Your task to perform on an android device: Search for hotels in Zurich Image 0: 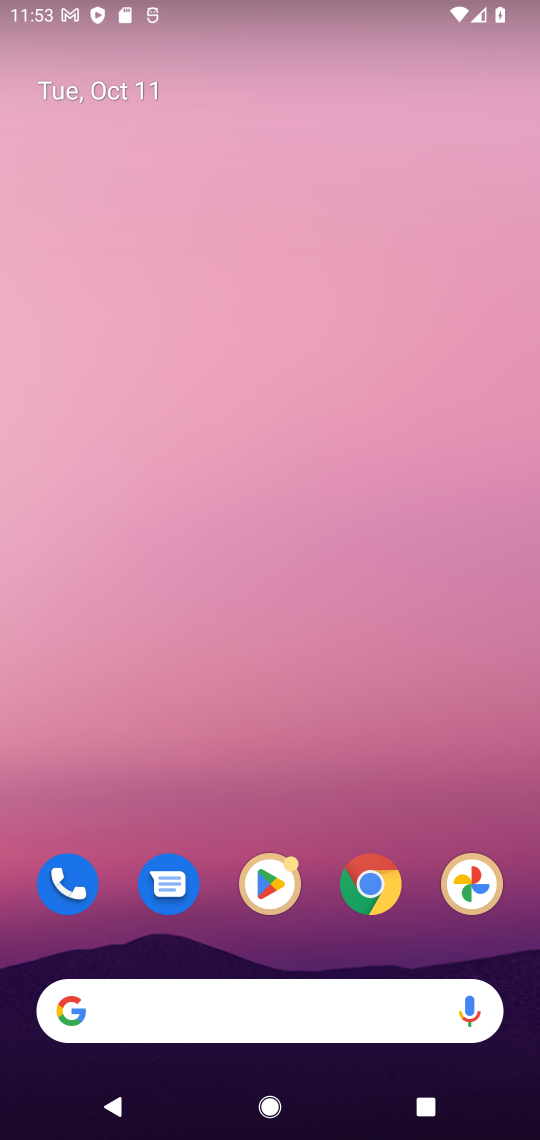
Step 0: drag from (174, 1035) to (211, 341)
Your task to perform on an android device: Search for hotels in Zurich Image 1: 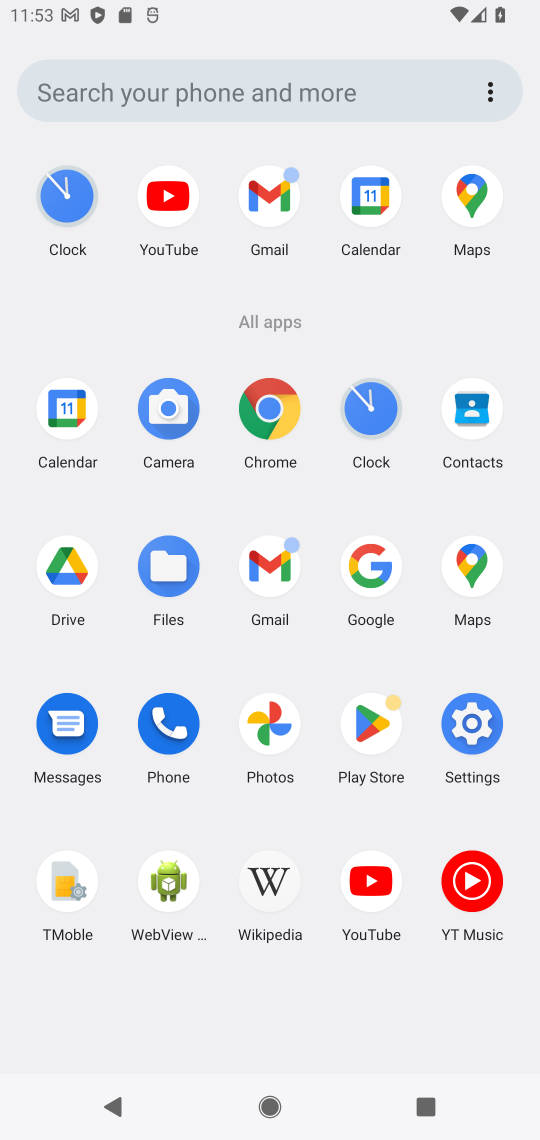
Step 1: click (356, 558)
Your task to perform on an android device: Search for hotels in Zurich Image 2: 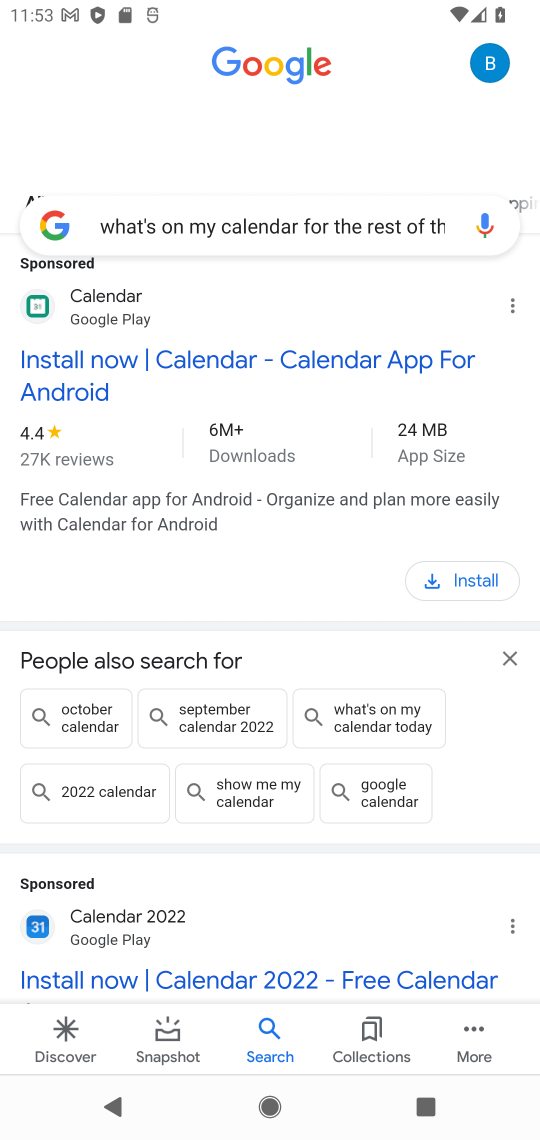
Step 2: click (312, 220)
Your task to perform on an android device: Search for hotels in Zurich Image 3: 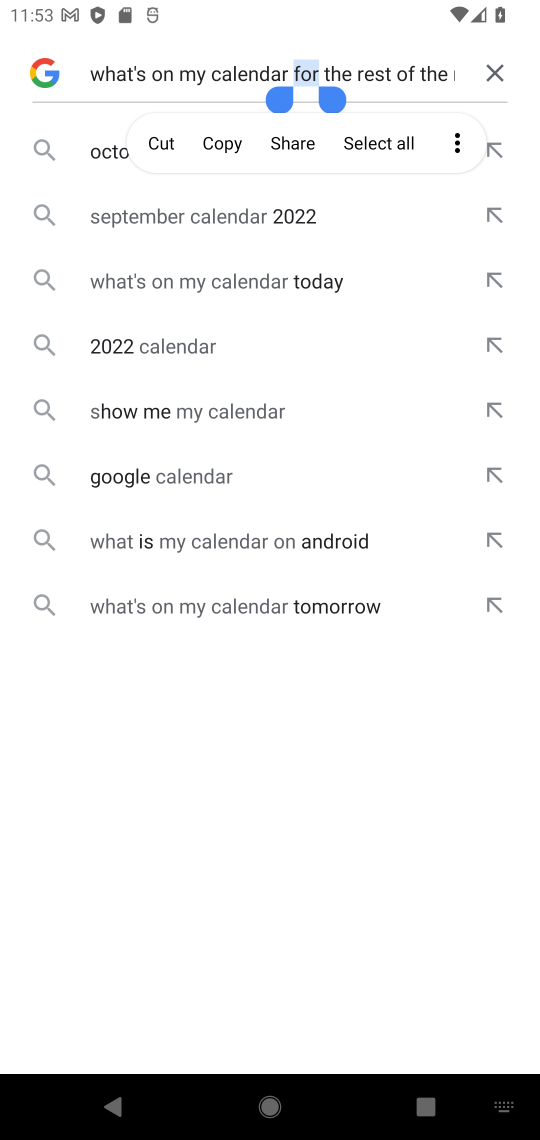
Step 3: click (487, 78)
Your task to perform on an android device: Search for hotels in Zurich Image 4: 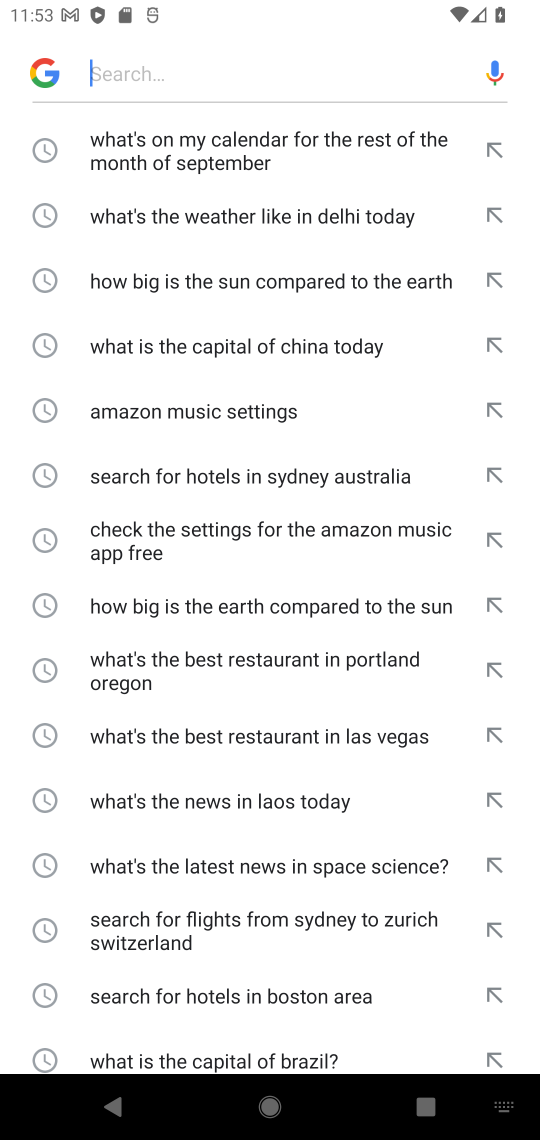
Step 4: type "Search for hotels in Zurich"
Your task to perform on an android device: Search for hotels in Zurich Image 5: 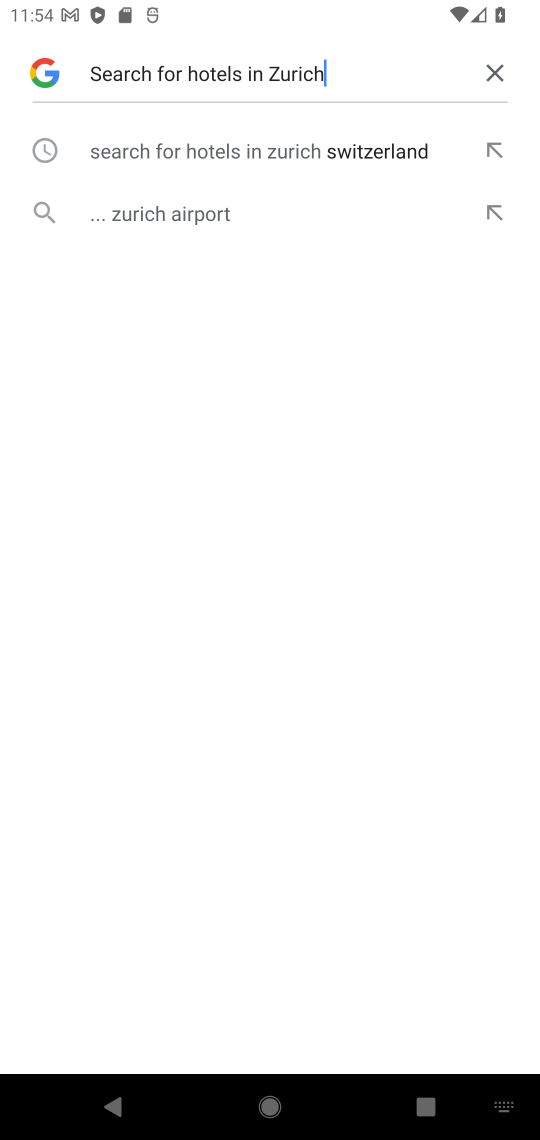
Step 5: click (327, 161)
Your task to perform on an android device: Search for hotels in Zurich Image 6: 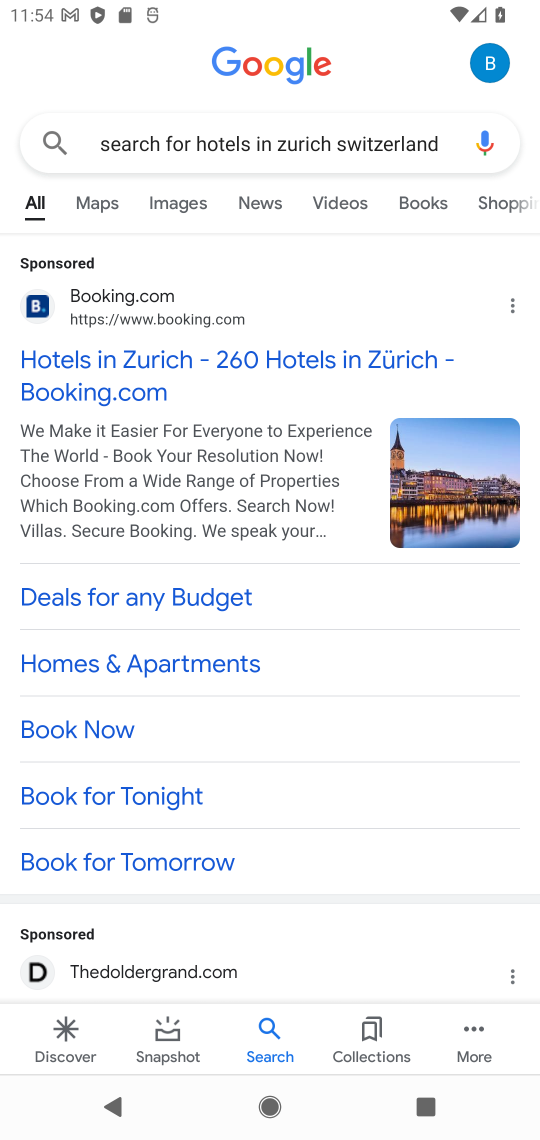
Step 6: click (191, 383)
Your task to perform on an android device: Search for hotels in Zurich Image 7: 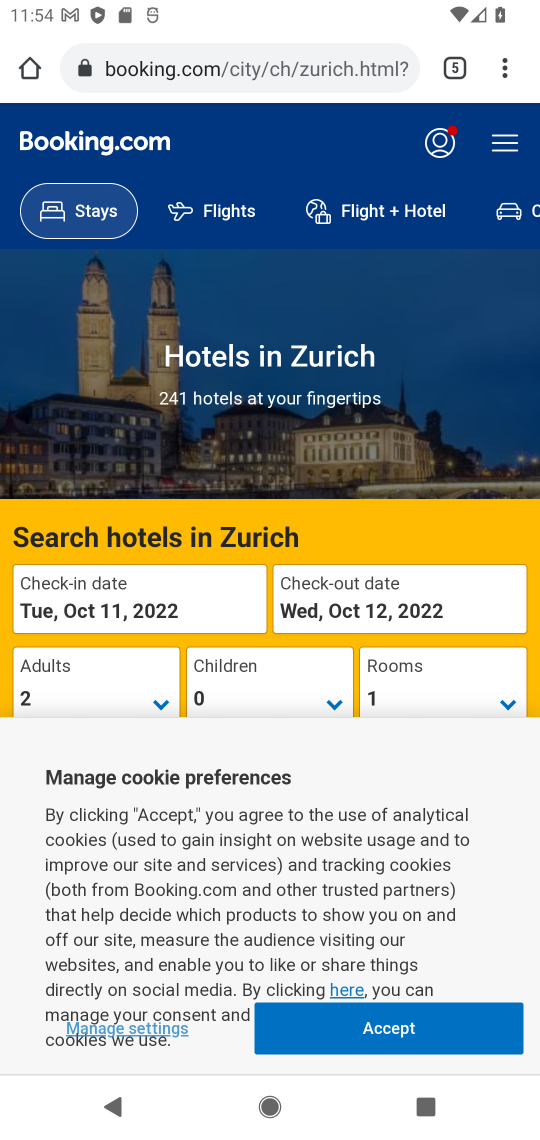
Step 7: task complete